Your task to perform on an android device: Open notification settings Image 0: 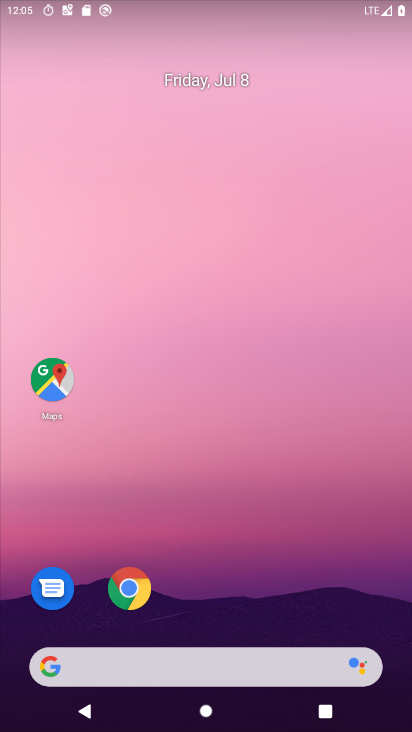
Step 0: drag from (193, 657) to (298, 112)
Your task to perform on an android device: Open notification settings Image 1: 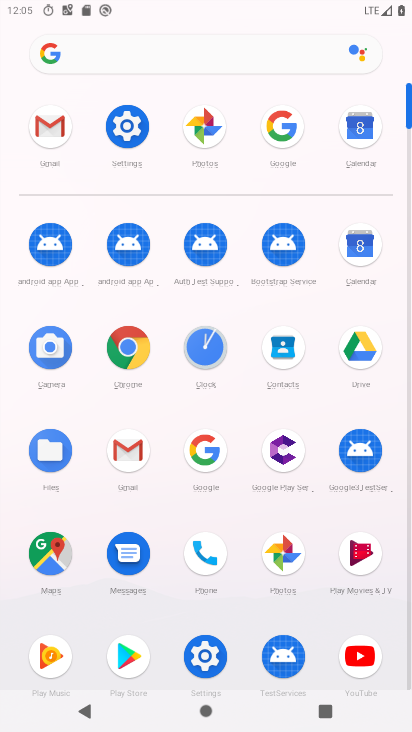
Step 1: click (131, 125)
Your task to perform on an android device: Open notification settings Image 2: 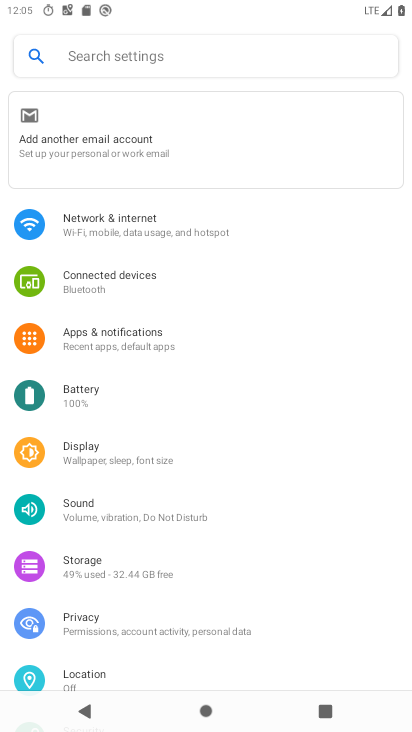
Step 2: click (113, 336)
Your task to perform on an android device: Open notification settings Image 3: 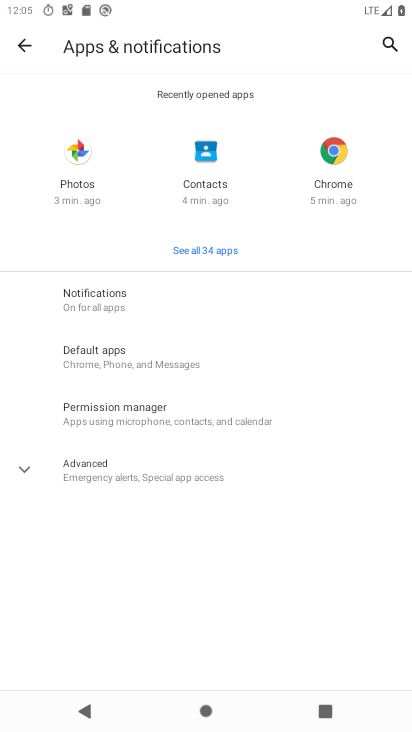
Step 3: click (102, 295)
Your task to perform on an android device: Open notification settings Image 4: 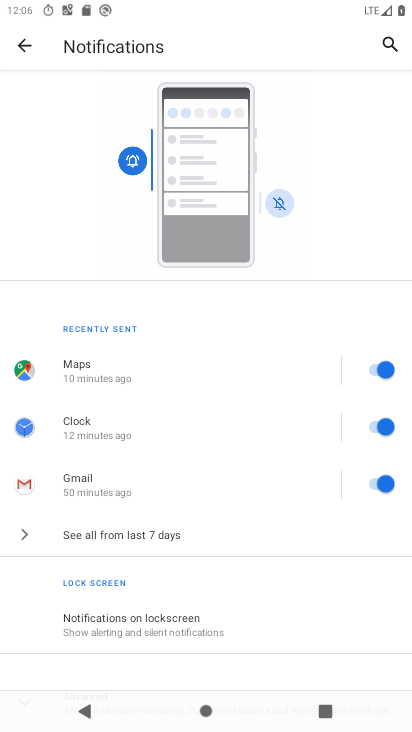
Step 4: task complete